Your task to perform on an android device: check out phone information Image 0: 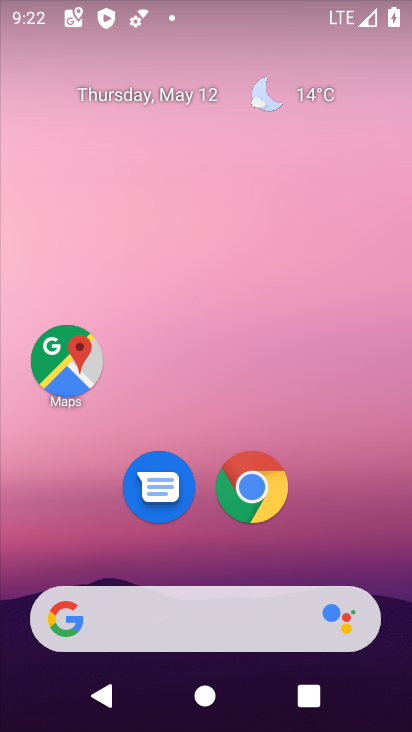
Step 0: drag from (74, 578) to (404, 114)
Your task to perform on an android device: check out phone information Image 1: 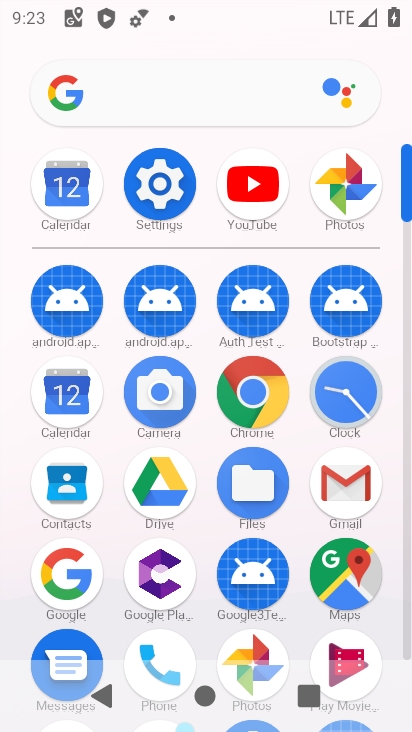
Step 1: click (156, 647)
Your task to perform on an android device: check out phone information Image 2: 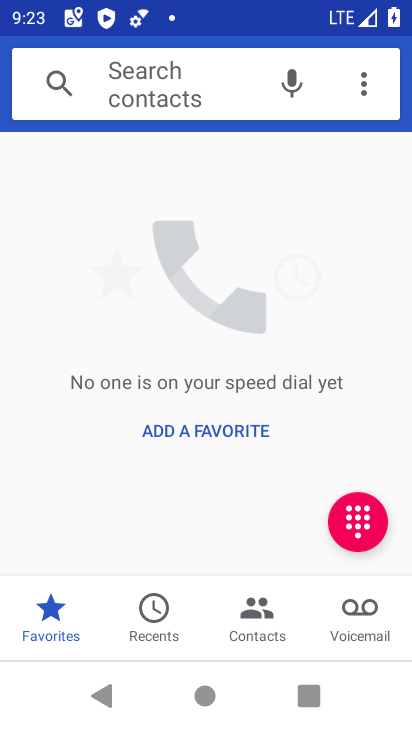
Step 2: task complete